Your task to perform on an android device: Go to CNN.com Image 0: 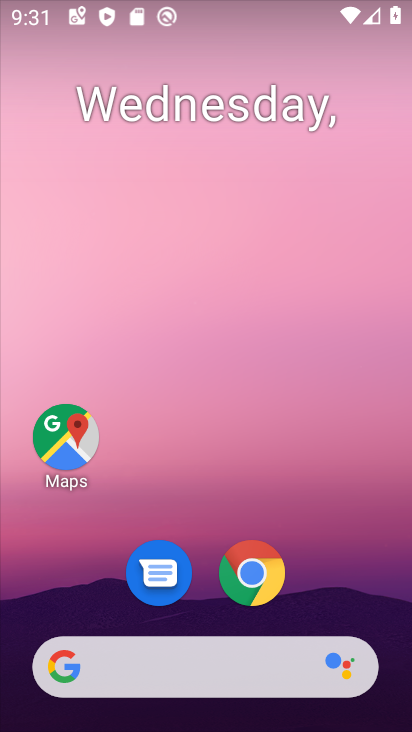
Step 0: click (250, 561)
Your task to perform on an android device: Go to CNN.com Image 1: 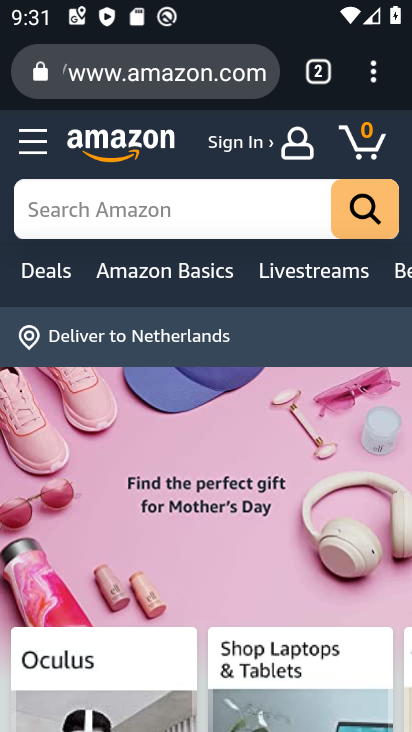
Step 1: click (265, 69)
Your task to perform on an android device: Go to CNN.com Image 2: 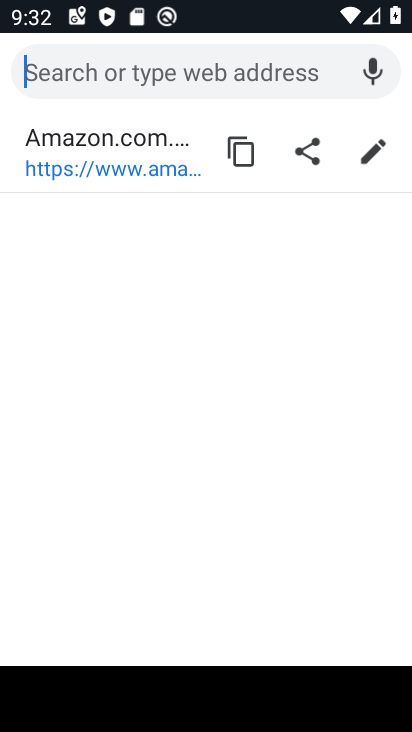
Step 2: type "CNN.com"
Your task to perform on an android device: Go to CNN.com Image 3: 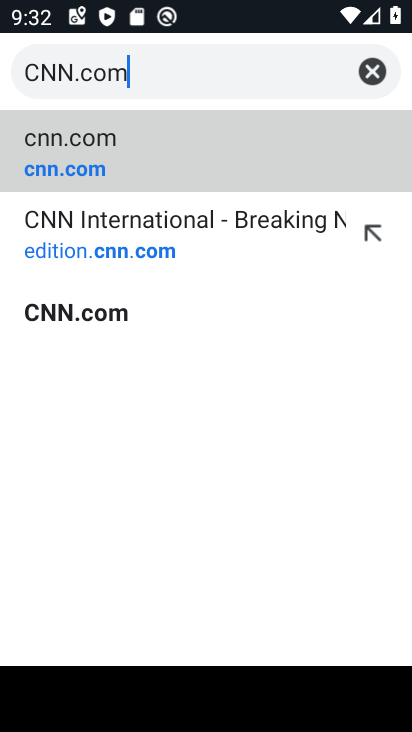
Step 3: click (77, 298)
Your task to perform on an android device: Go to CNN.com Image 4: 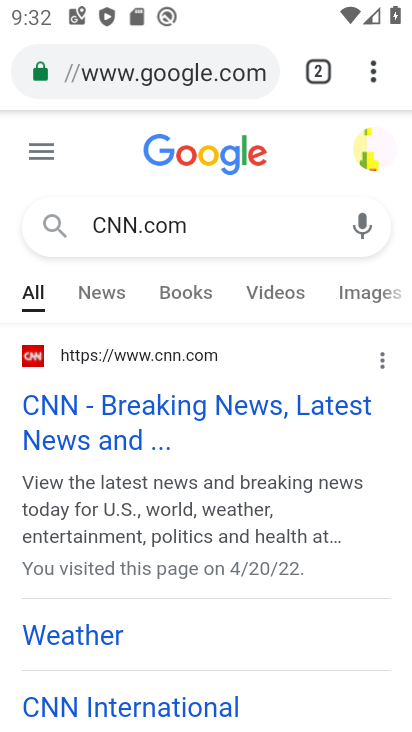
Step 4: task complete